Your task to perform on an android device: Check the weather Image 0: 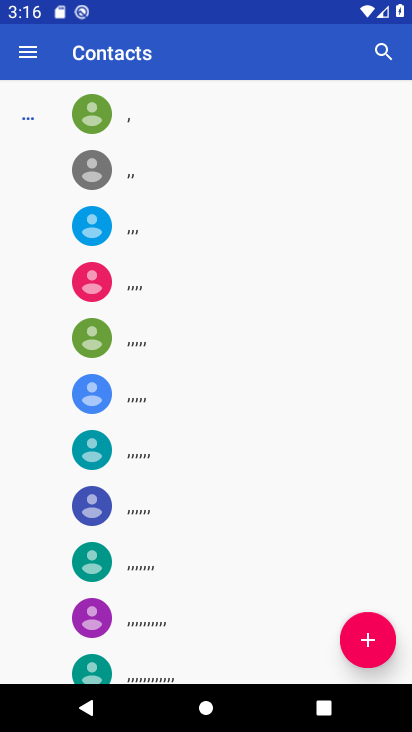
Step 0: press home button
Your task to perform on an android device: Check the weather Image 1: 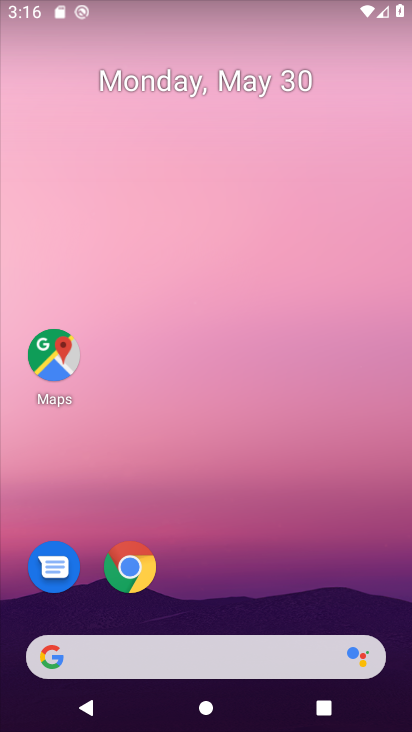
Step 1: click (185, 655)
Your task to perform on an android device: Check the weather Image 2: 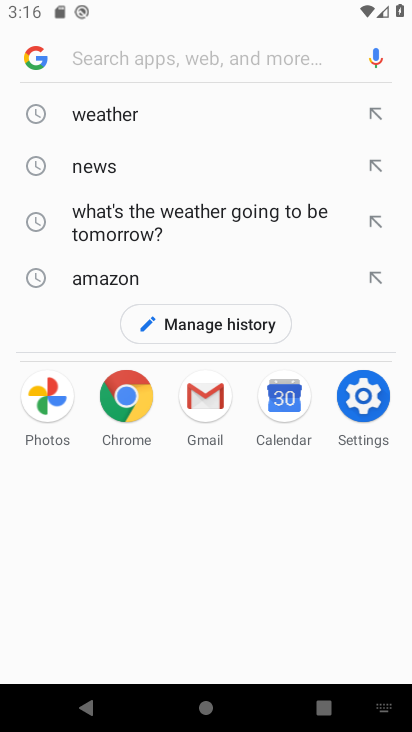
Step 2: type "weather"
Your task to perform on an android device: Check the weather Image 3: 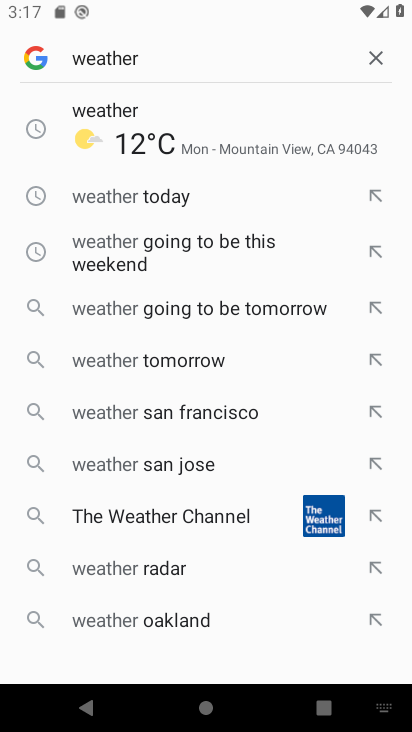
Step 3: click (107, 155)
Your task to perform on an android device: Check the weather Image 4: 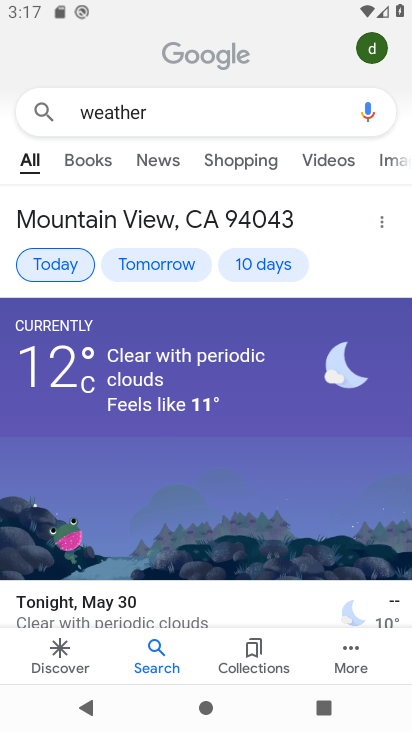
Step 4: task complete